Your task to perform on an android device: check out phone information Image 0: 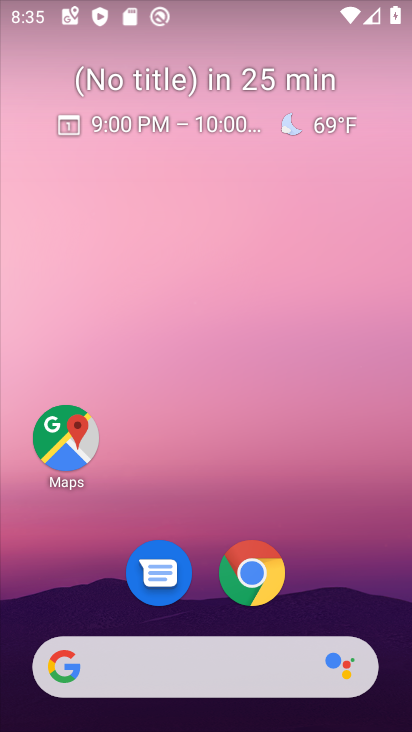
Step 0: drag from (187, 611) to (193, 147)
Your task to perform on an android device: check out phone information Image 1: 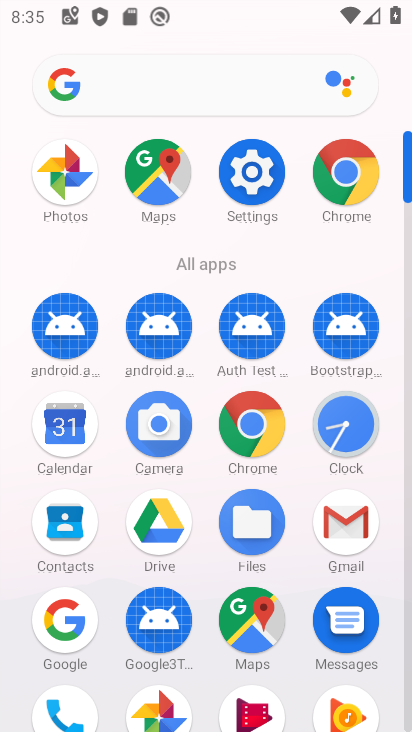
Step 1: click (257, 200)
Your task to perform on an android device: check out phone information Image 2: 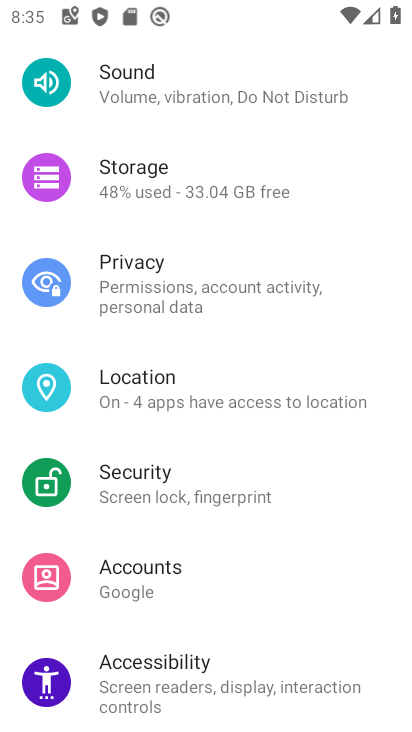
Step 2: drag from (211, 553) to (258, 240)
Your task to perform on an android device: check out phone information Image 3: 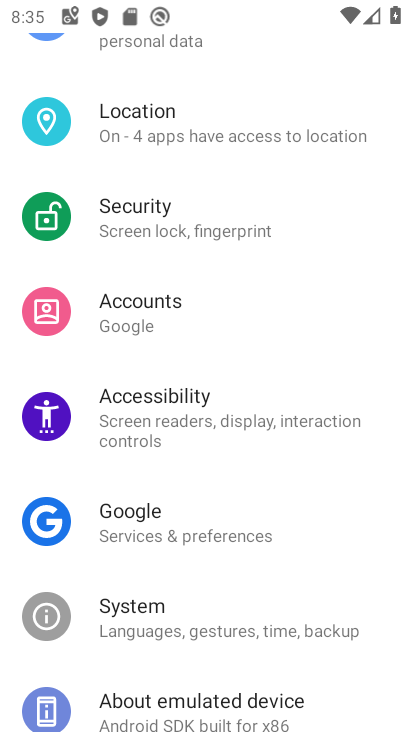
Step 3: drag from (186, 651) to (250, 371)
Your task to perform on an android device: check out phone information Image 4: 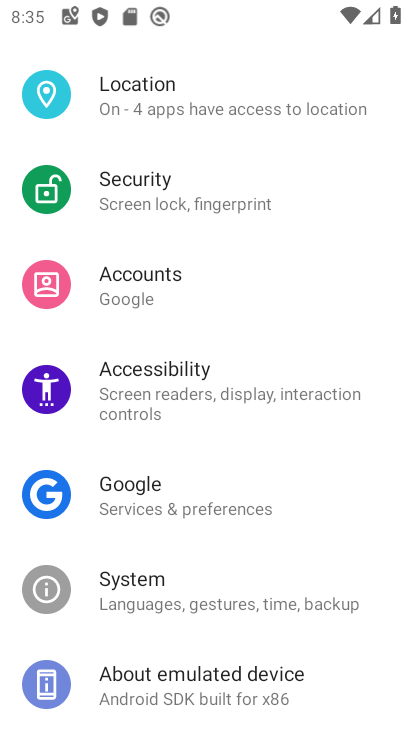
Step 4: click (180, 677)
Your task to perform on an android device: check out phone information Image 5: 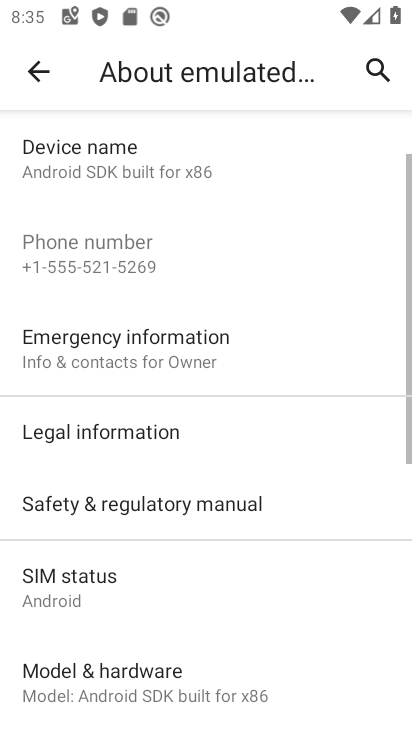
Step 5: task complete